Your task to perform on an android device: toggle airplane mode Image 0: 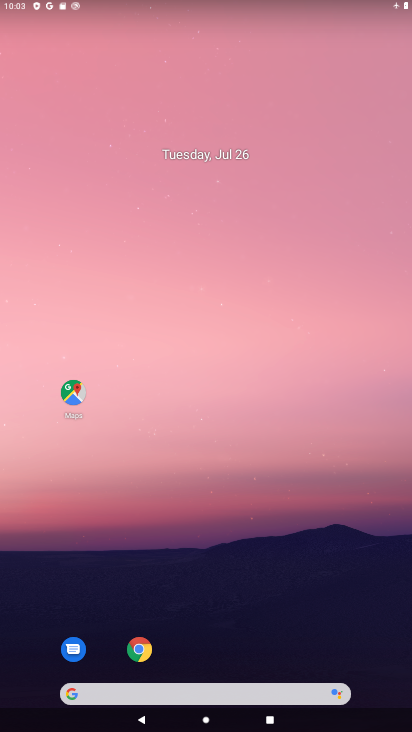
Step 0: drag from (193, 690) to (249, 185)
Your task to perform on an android device: toggle airplane mode Image 1: 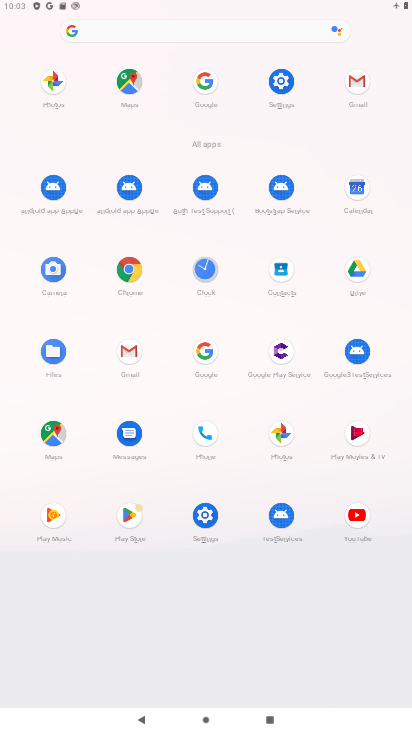
Step 1: click (287, 84)
Your task to perform on an android device: toggle airplane mode Image 2: 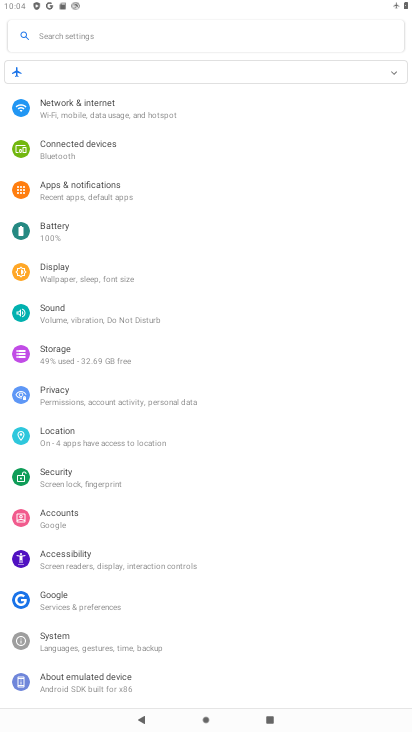
Step 2: click (83, 108)
Your task to perform on an android device: toggle airplane mode Image 3: 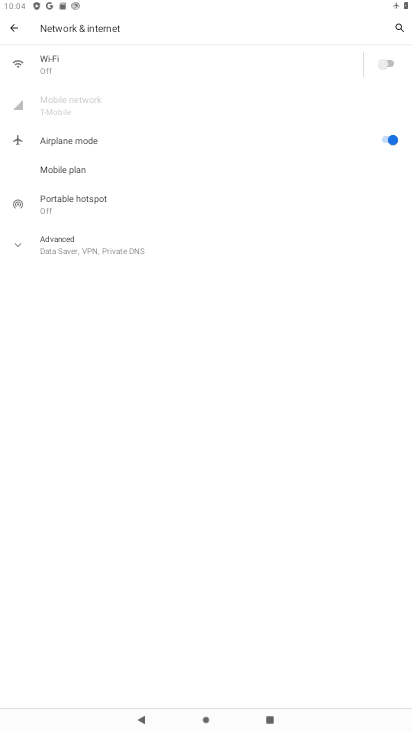
Step 3: click (391, 138)
Your task to perform on an android device: toggle airplane mode Image 4: 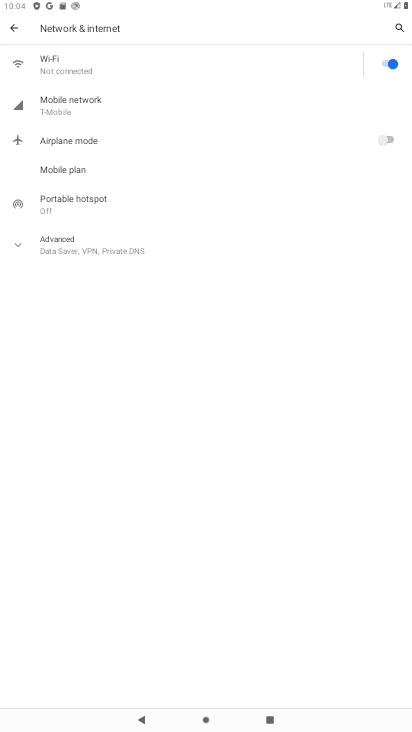
Step 4: task complete